Your task to perform on an android device: Open calendar and show me the third week of next month Image 0: 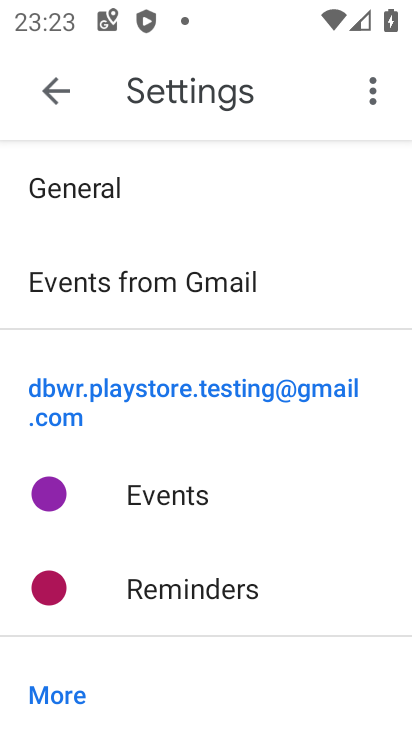
Step 0: press home button
Your task to perform on an android device: Open calendar and show me the third week of next month Image 1: 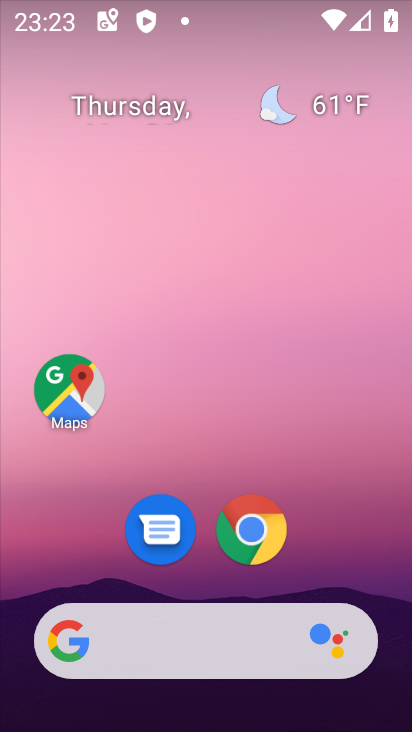
Step 1: drag from (334, 543) to (324, 64)
Your task to perform on an android device: Open calendar and show me the third week of next month Image 2: 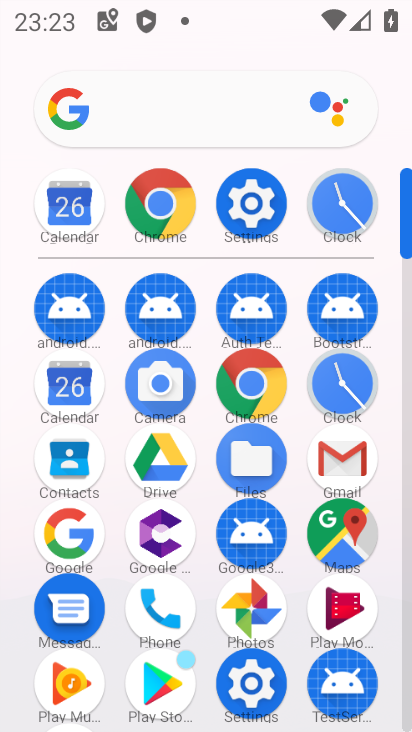
Step 2: click (87, 207)
Your task to perform on an android device: Open calendar and show me the third week of next month Image 3: 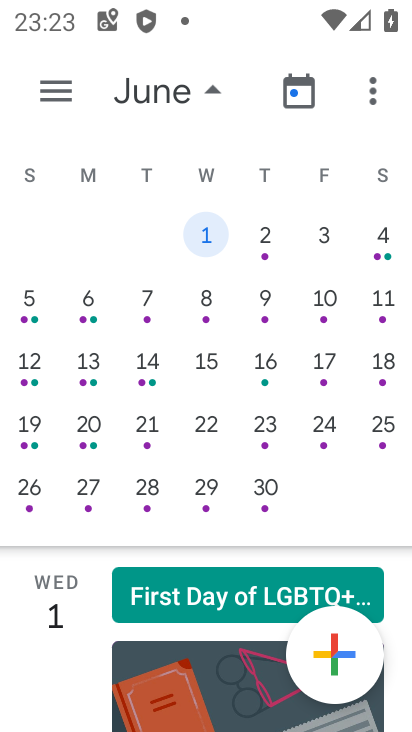
Step 3: click (61, 99)
Your task to perform on an android device: Open calendar and show me the third week of next month Image 4: 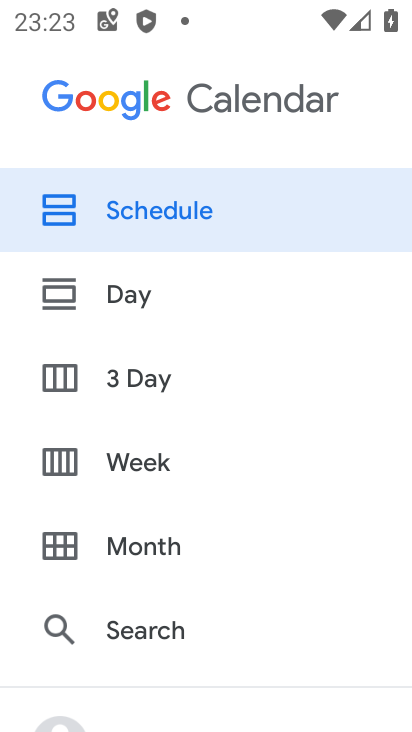
Step 4: task complete